Your task to perform on an android device: manage bookmarks in the chrome app Image 0: 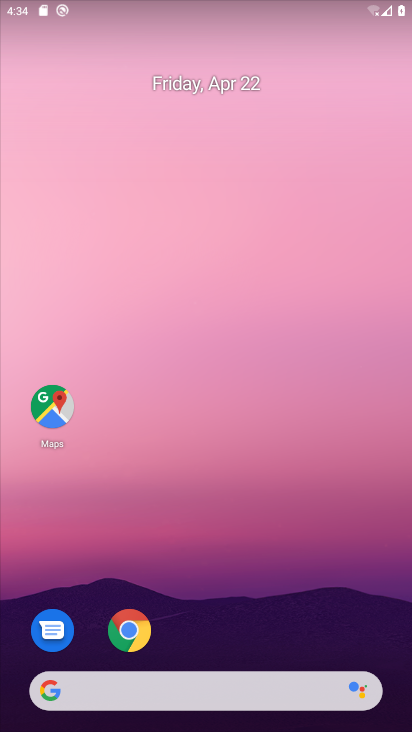
Step 0: click (132, 628)
Your task to perform on an android device: manage bookmarks in the chrome app Image 1: 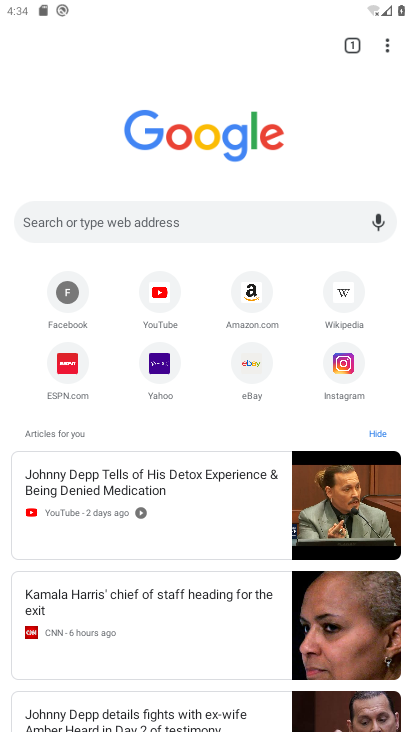
Step 1: click (388, 49)
Your task to perform on an android device: manage bookmarks in the chrome app Image 2: 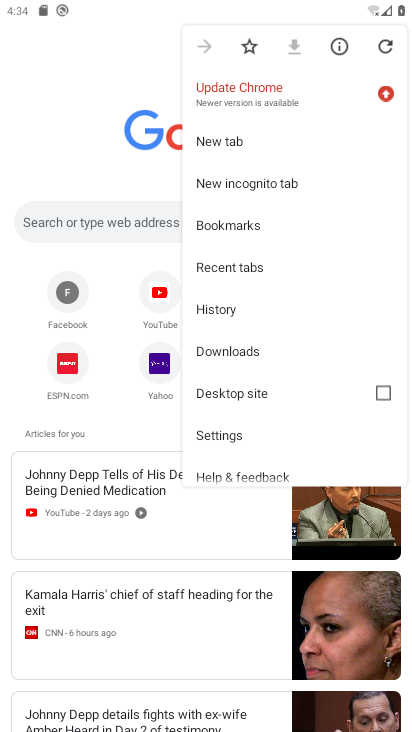
Step 2: click (245, 49)
Your task to perform on an android device: manage bookmarks in the chrome app Image 3: 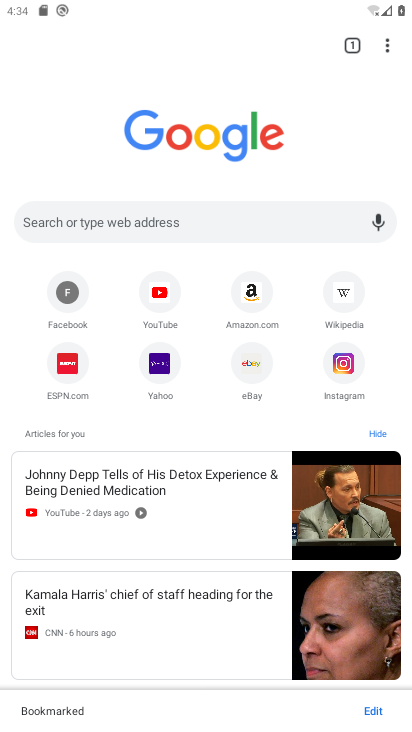
Step 3: task complete